Your task to perform on an android device: turn on showing notifications on the lock screen Image 0: 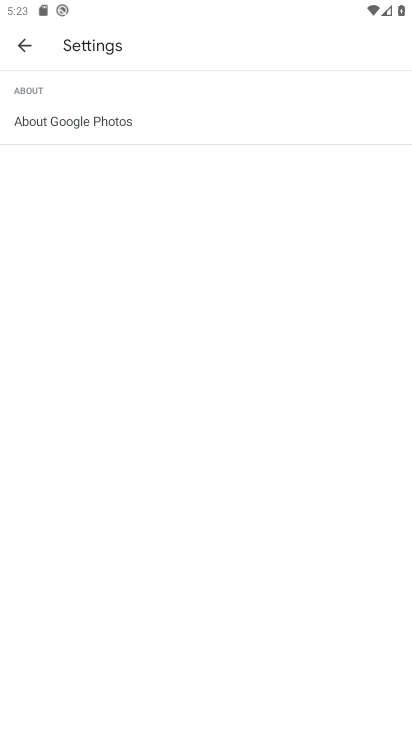
Step 0: press home button
Your task to perform on an android device: turn on showing notifications on the lock screen Image 1: 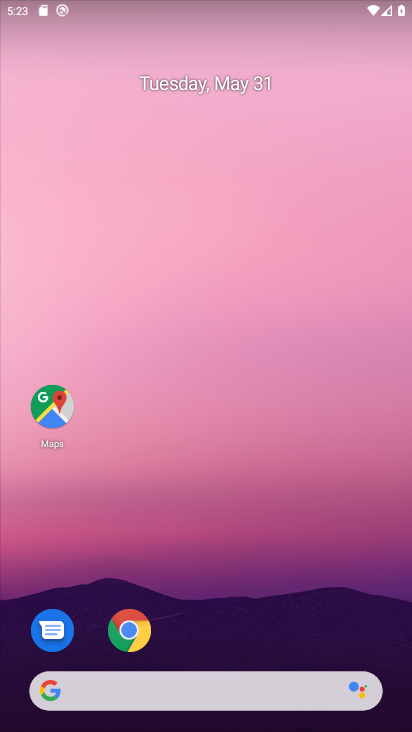
Step 1: drag from (230, 617) to (226, 31)
Your task to perform on an android device: turn on showing notifications on the lock screen Image 2: 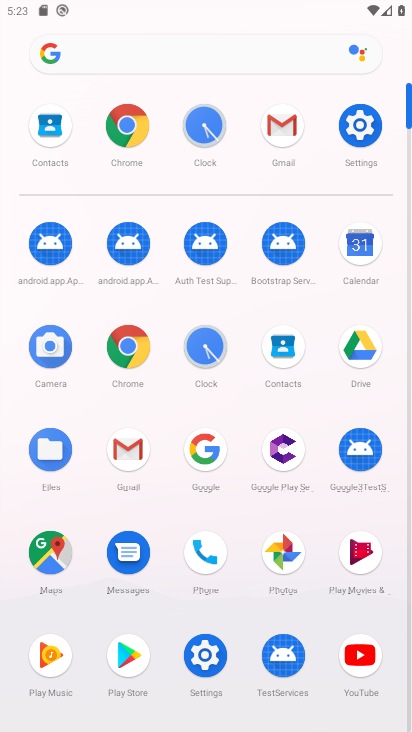
Step 2: click (363, 116)
Your task to perform on an android device: turn on showing notifications on the lock screen Image 3: 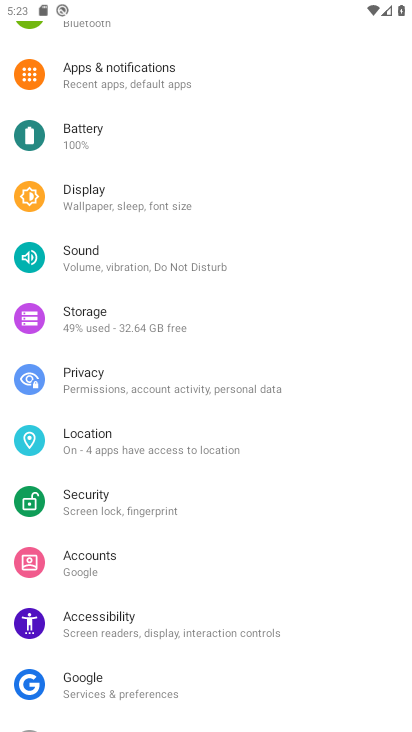
Step 3: click (159, 65)
Your task to perform on an android device: turn on showing notifications on the lock screen Image 4: 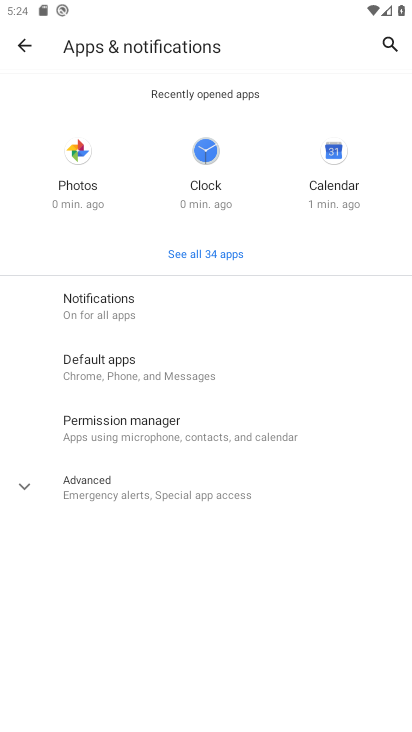
Step 4: click (84, 306)
Your task to perform on an android device: turn on showing notifications on the lock screen Image 5: 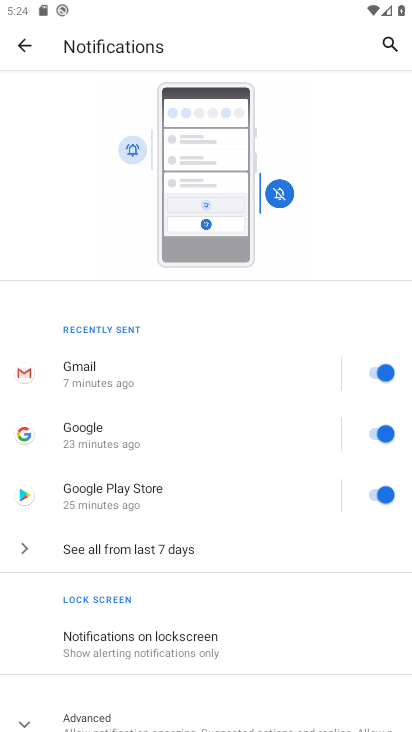
Step 5: click (142, 635)
Your task to perform on an android device: turn on showing notifications on the lock screen Image 6: 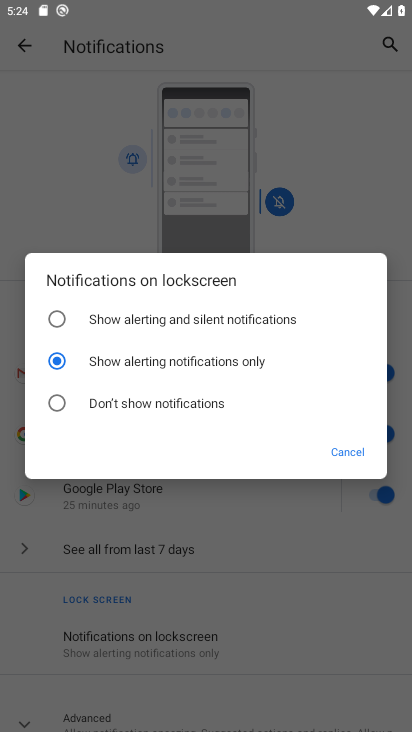
Step 6: click (57, 317)
Your task to perform on an android device: turn on showing notifications on the lock screen Image 7: 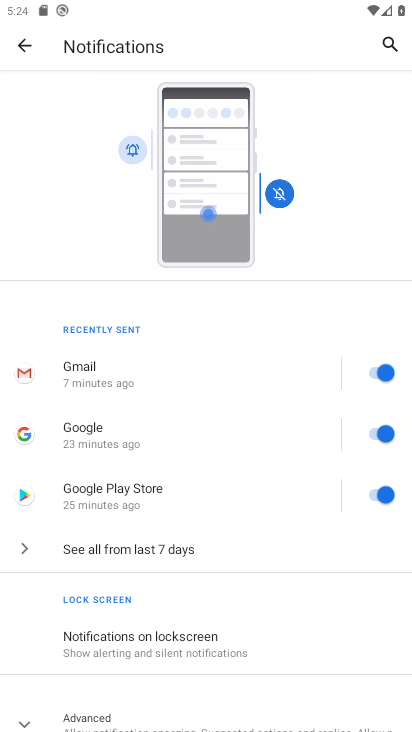
Step 7: task complete